Your task to perform on an android device: Check the weather Image 0: 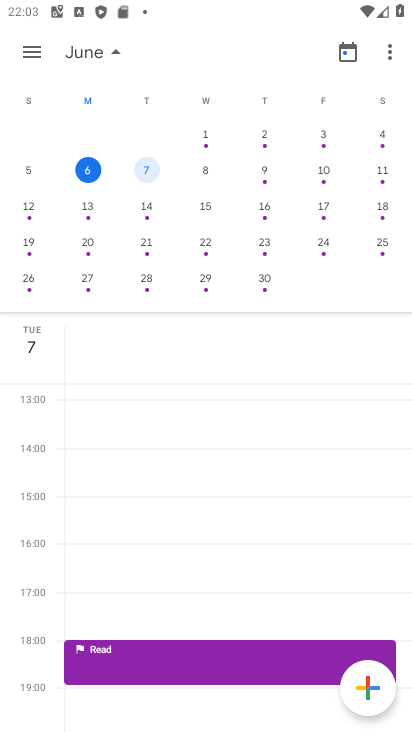
Step 0: press home button
Your task to perform on an android device: Check the weather Image 1: 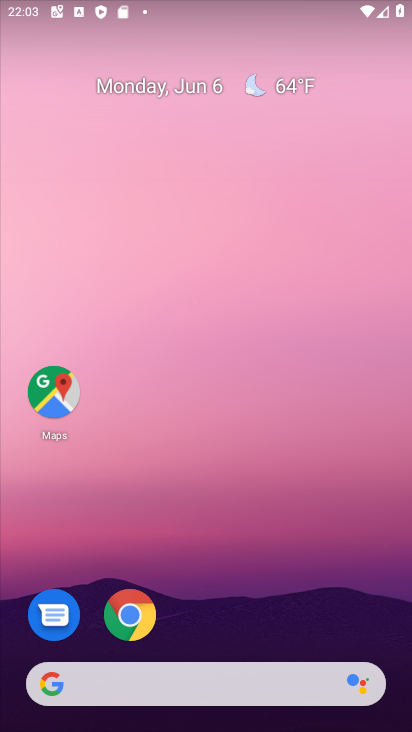
Step 1: drag from (396, 704) to (386, 201)
Your task to perform on an android device: Check the weather Image 2: 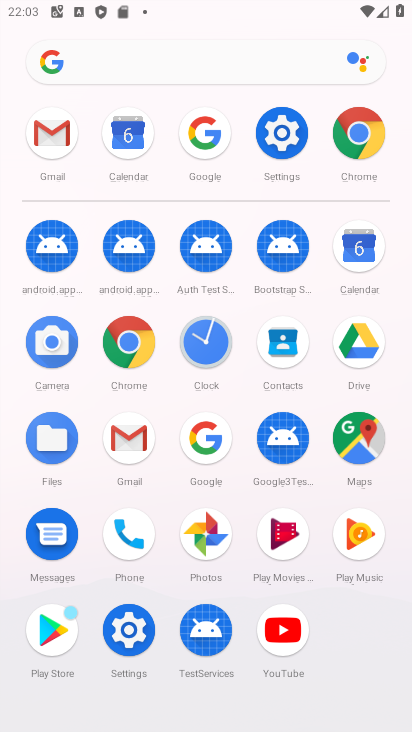
Step 2: click (197, 439)
Your task to perform on an android device: Check the weather Image 3: 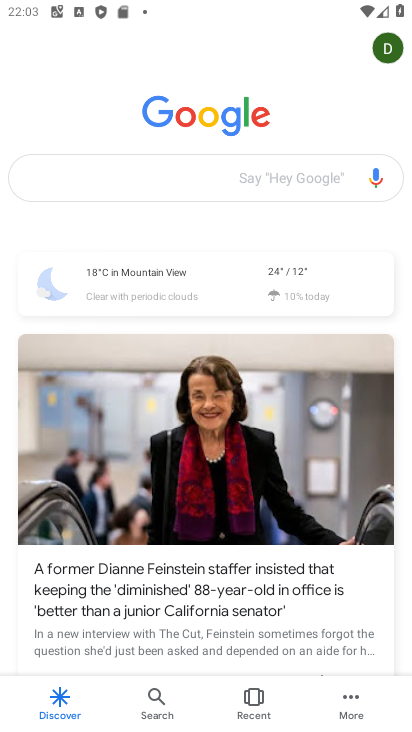
Step 3: click (284, 271)
Your task to perform on an android device: Check the weather Image 4: 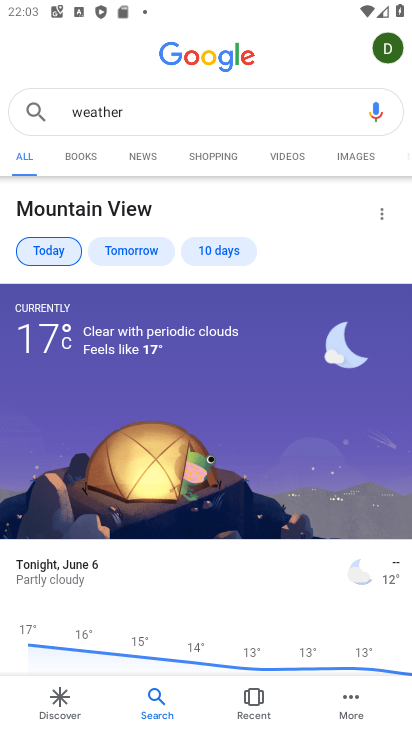
Step 4: click (65, 241)
Your task to perform on an android device: Check the weather Image 5: 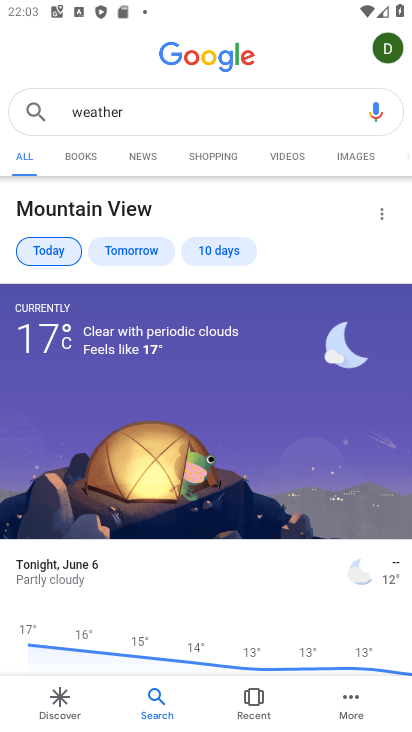
Step 5: task complete